Your task to perform on an android device: open chrome privacy settings Image 0: 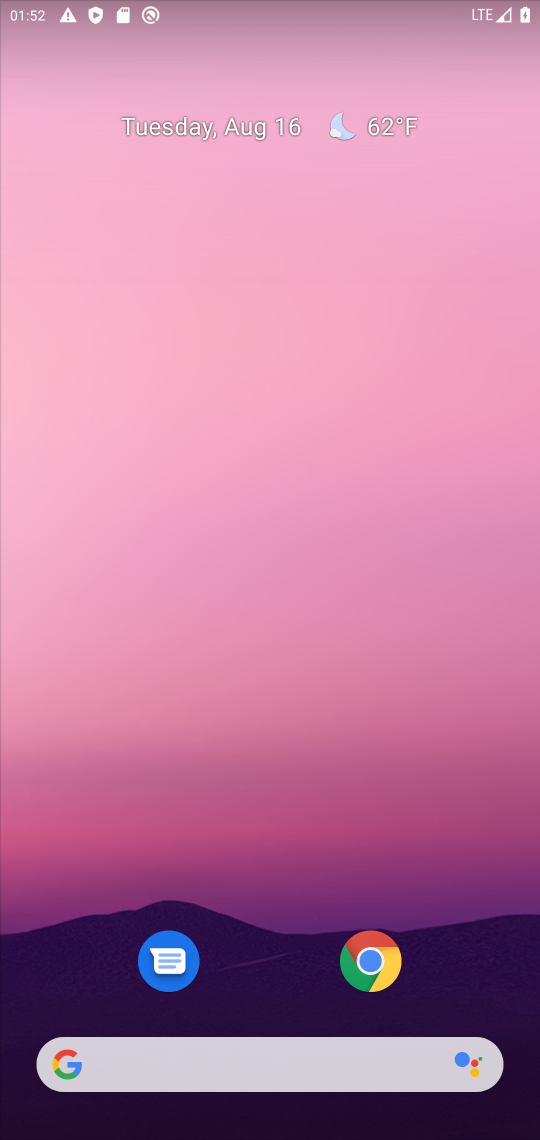
Step 0: press home button
Your task to perform on an android device: open chrome privacy settings Image 1: 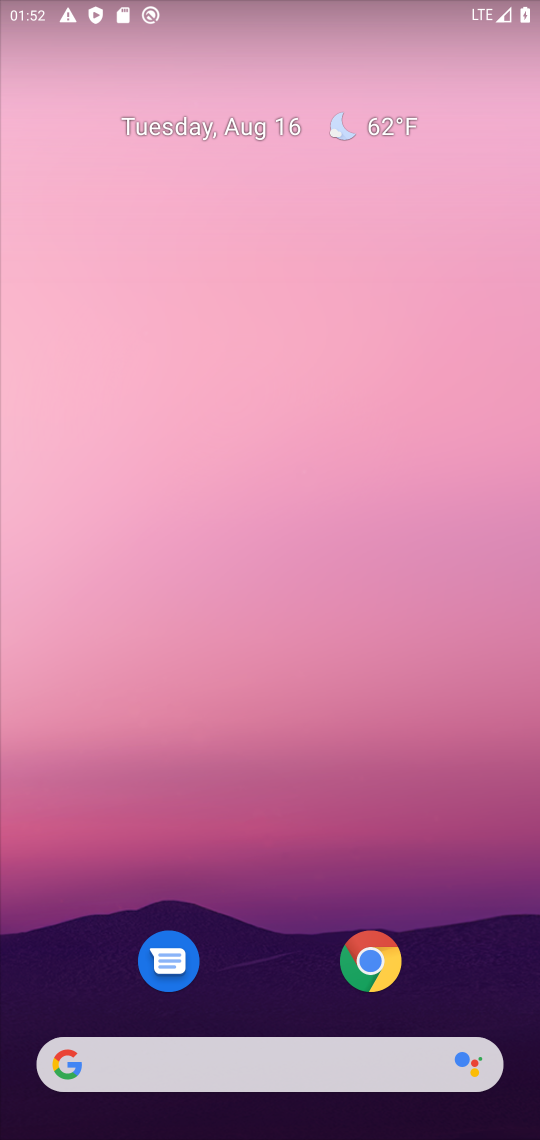
Step 1: drag from (291, 1003) to (288, 469)
Your task to perform on an android device: open chrome privacy settings Image 2: 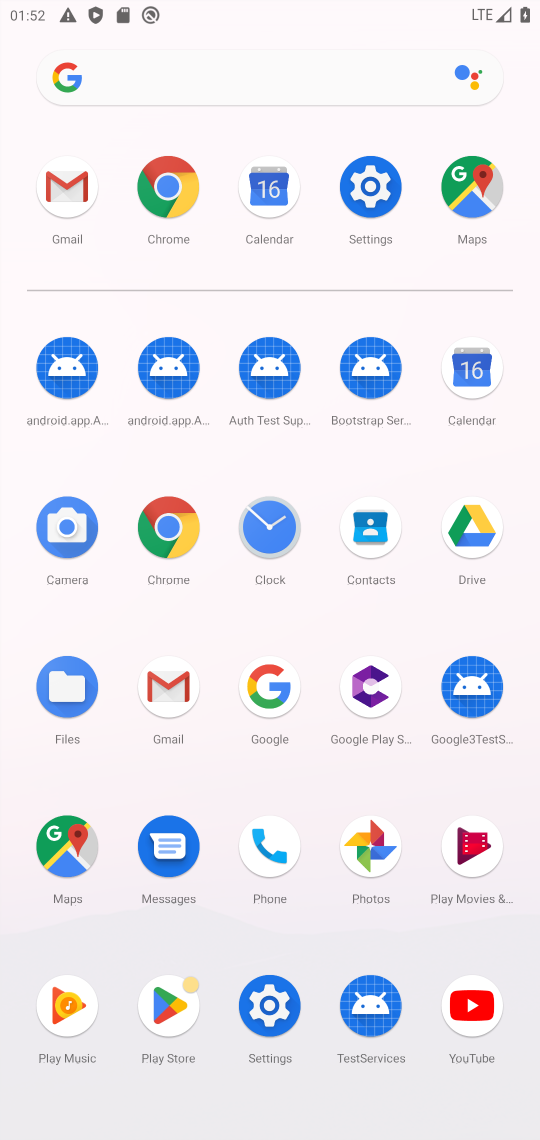
Step 2: click (187, 214)
Your task to perform on an android device: open chrome privacy settings Image 3: 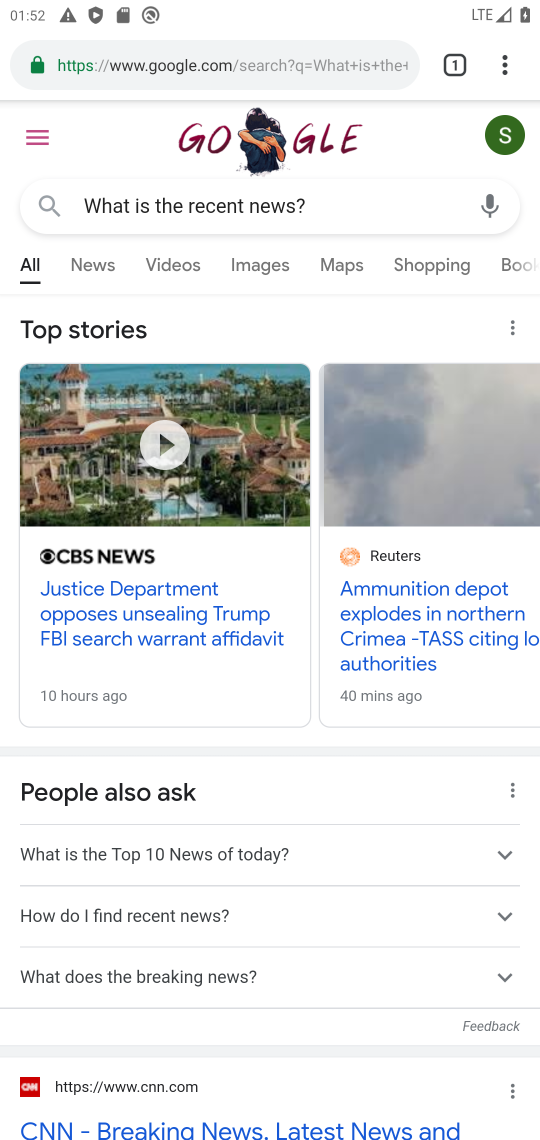
Step 3: drag from (507, 71) to (295, 785)
Your task to perform on an android device: open chrome privacy settings Image 4: 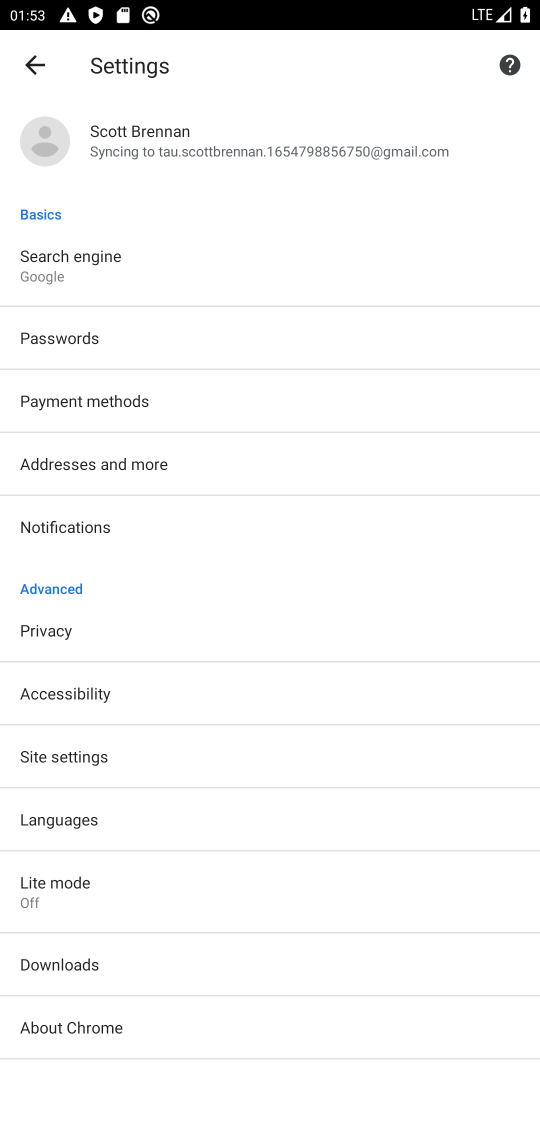
Step 4: click (69, 637)
Your task to perform on an android device: open chrome privacy settings Image 5: 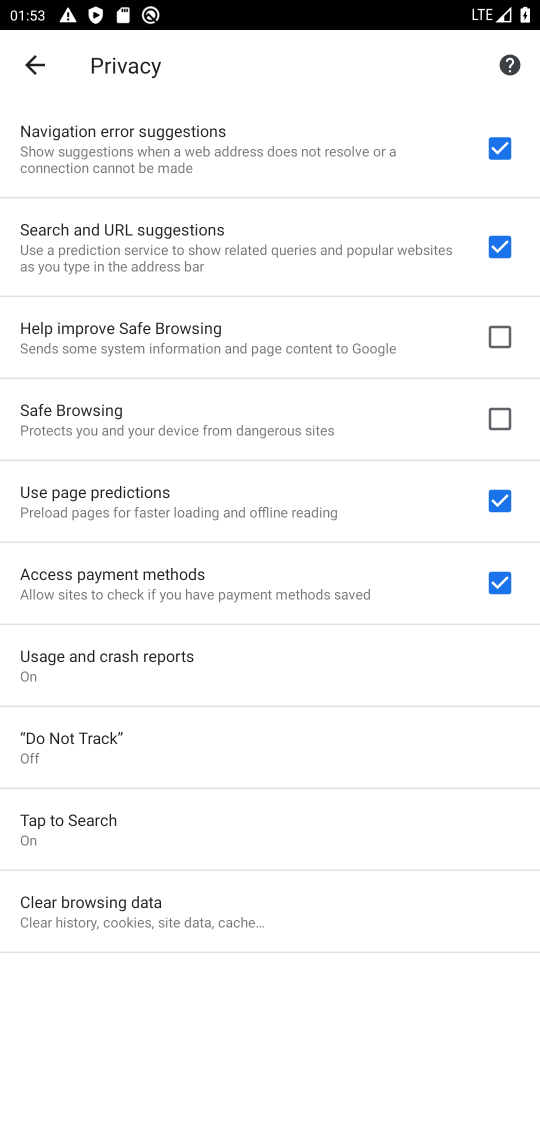
Step 5: task complete